Your task to perform on an android device: turn on javascript in the chrome app Image 0: 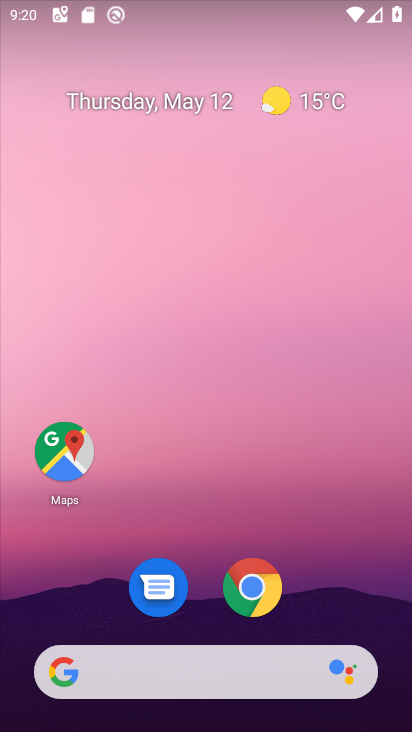
Step 0: drag from (356, 389) to (306, 165)
Your task to perform on an android device: turn on javascript in the chrome app Image 1: 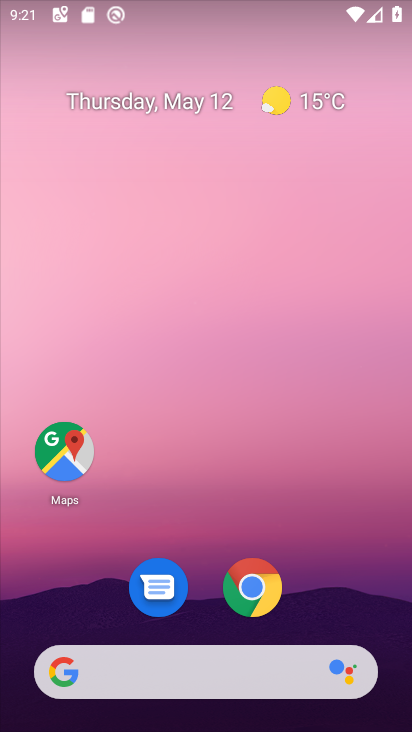
Step 1: drag from (388, 591) to (290, 227)
Your task to perform on an android device: turn on javascript in the chrome app Image 2: 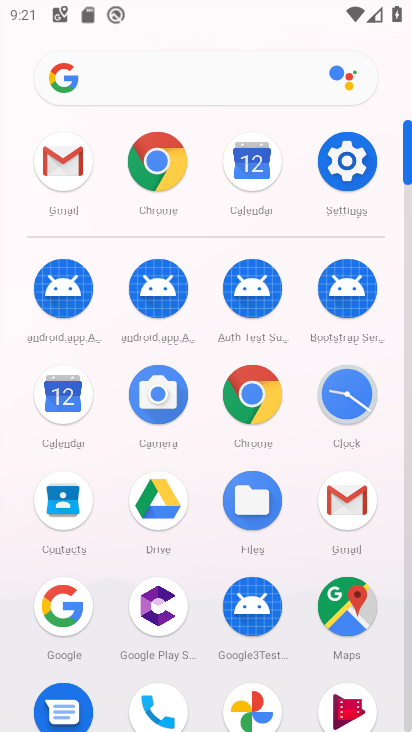
Step 2: click (272, 401)
Your task to perform on an android device: turn on javascript in the chrome app Image 3: 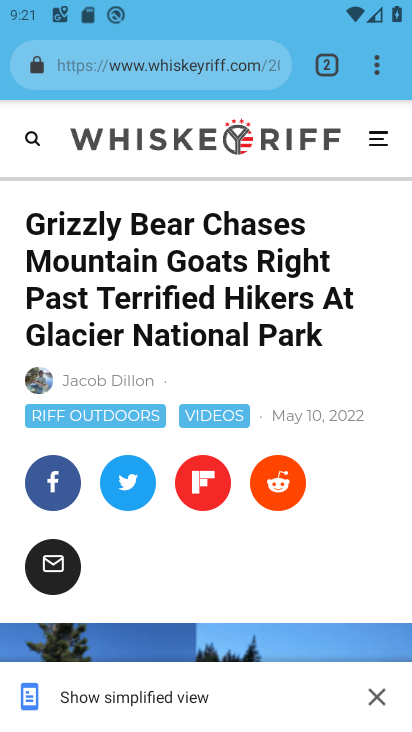
Step 3: press back button
Your task to perform on an android device: turn on javascript in the chrome app Image 4: 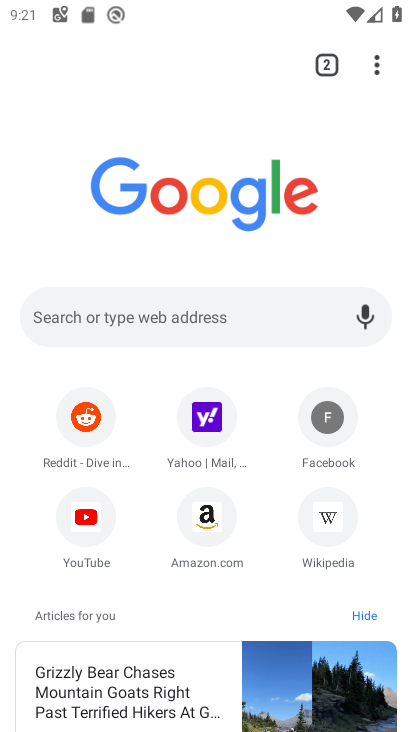
Step 4: click (381, 58)
Your task to perform on an android device: turn on javascript in the chrome app Image 5: 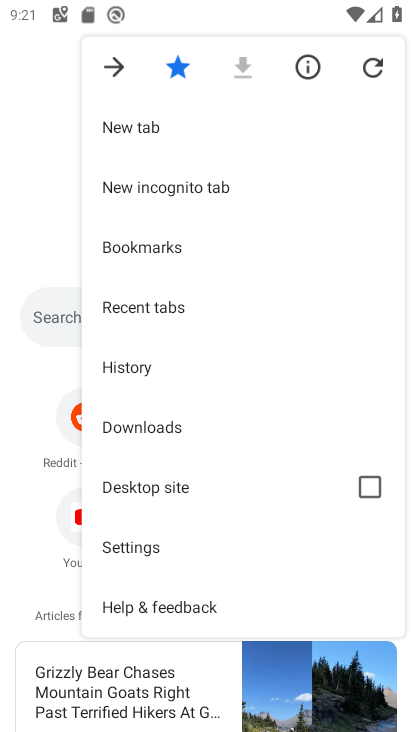
Step 5: click (200, 550)
Your task to perform on an android device: turn on javascript in the chrome app Image 6: 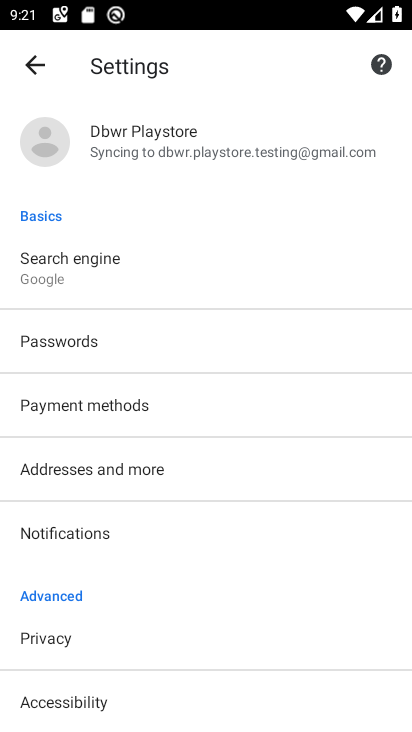
Step 6: drag from (187, 612) to (208, 330)
Your task to perform on an android device: turn on javascript in the chrome app Image 7: 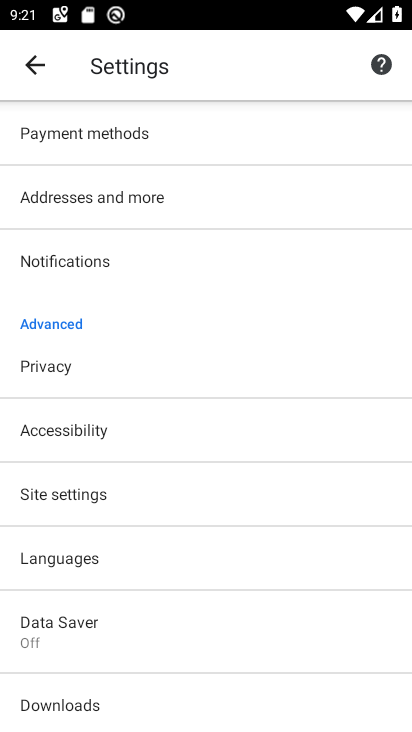
Step 7: click (185, 496)
Your task to perform on an android device: turn on javascript in the chrome app Image 8: 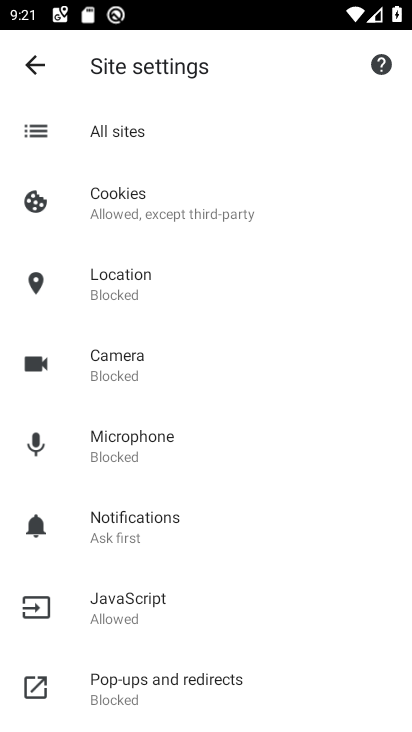
Step 8: click (175, 624)
Your task to perform on an android device: turn on javascript in the chrome app Image 9: 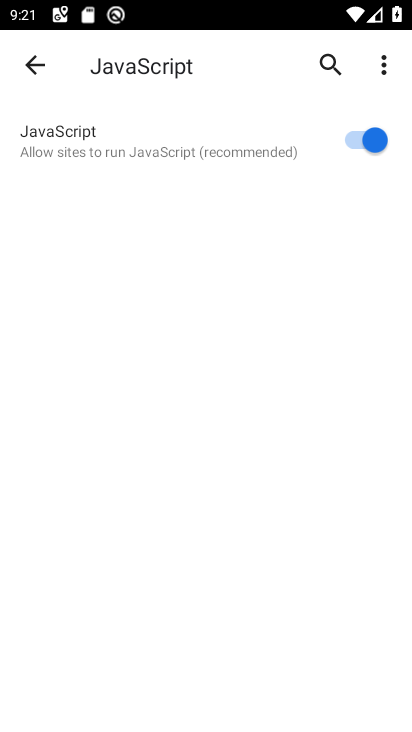
Step 9: task complete